Your task to perform on an android device: set the stopwatch Image 0: 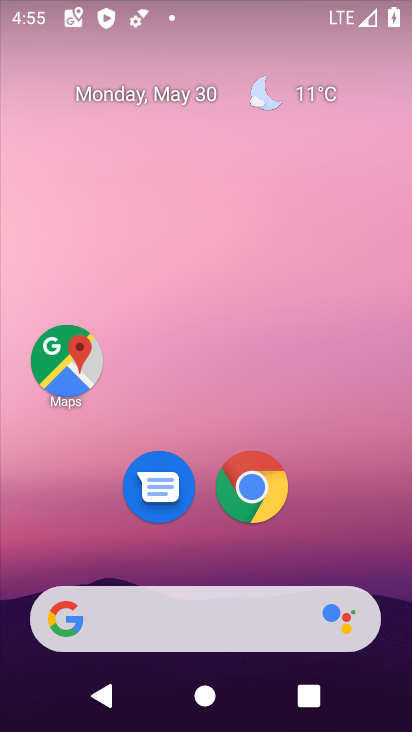
Step 0: drag from (400, 614) to (308, 0)
Your task to perform on an android device: set the stopwatch Image 1: 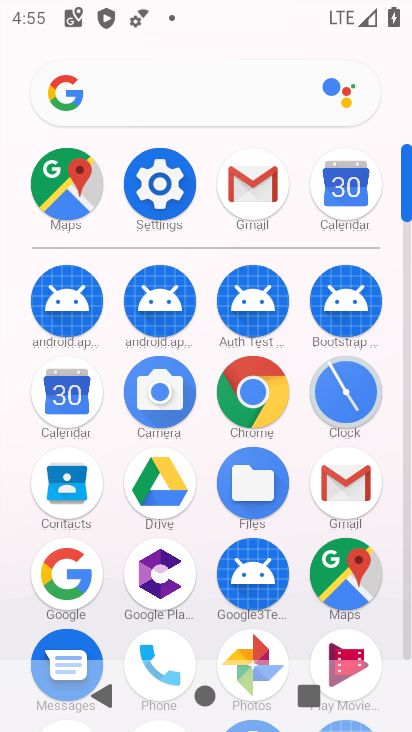
Step 1: click (344, 394)
Your task to perform on an android device: set the stopwatch Image 2: 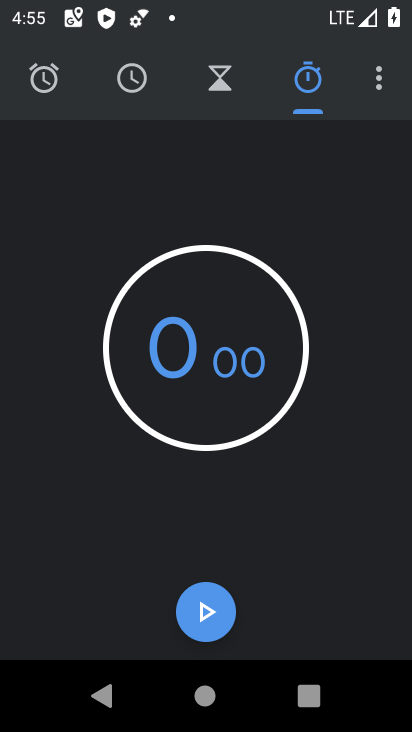
Step 2: task complete